Your task to perform on an android device: toggle show notifications on the lock screen Image 0: 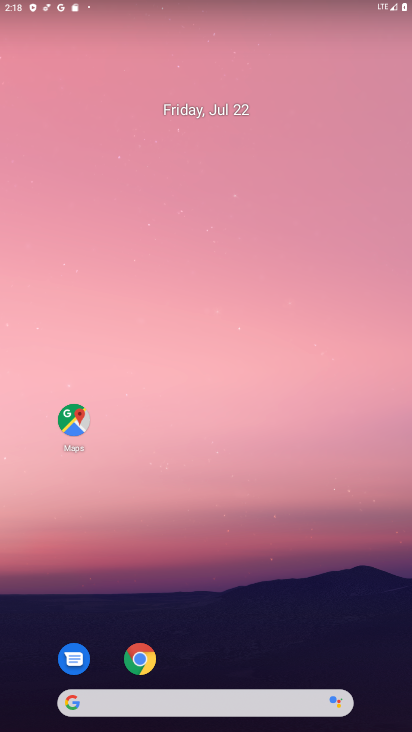
Step 0: click (65, 434)
Your task to perform on an android device: toggle show notifications on the lock screen Image 1: 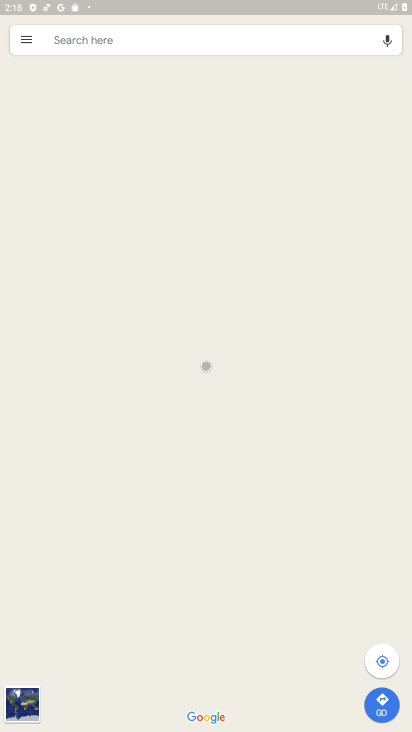
Step 1: click (97, 42)
Your task to perform on an android device: toggle show notifications on the lock screen Image 2: 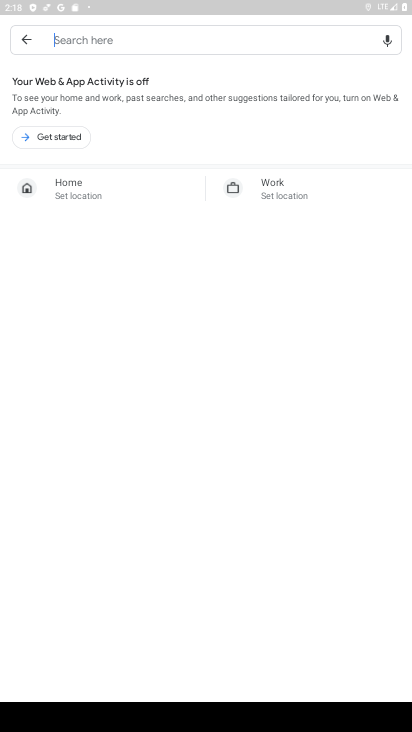
Step 2: type "sushi restaurants"
Your task to perform on an android device: toggle show notifications on the lock screen Image 3: 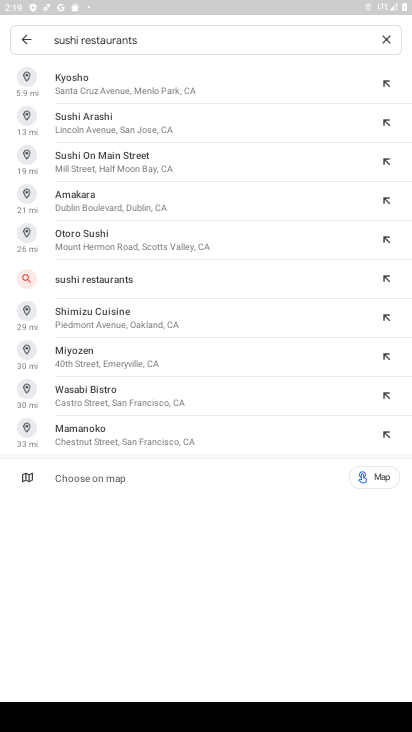
Step 3: click (133, 282)
Your task to perform on an android device: toggle show notifications on the lock screen Image 4: 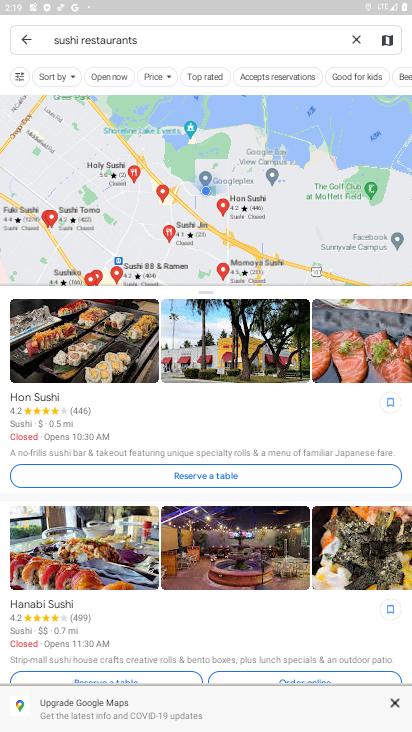
Step 4: press home button
Your task to perform on an android device: toggle show notifications on the lock screen Image 5: 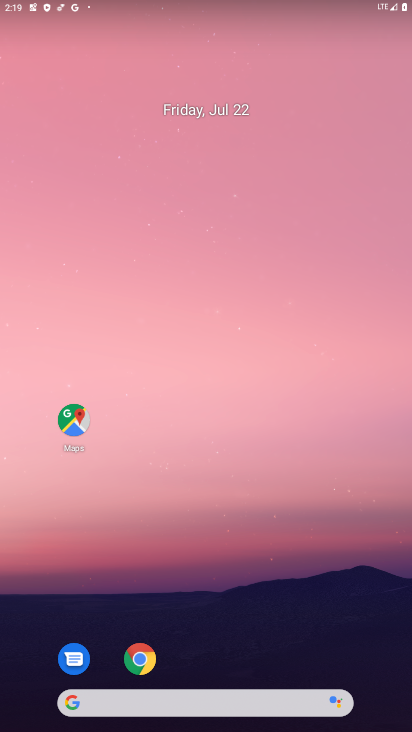
Step 5: drag from (194, 630) to (190, 153)
Your task to perform on an android device: toggle show notifications on the lock screen Image 6: 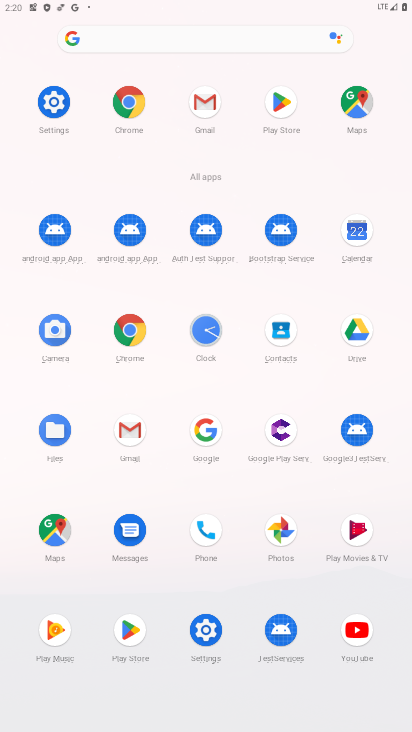
Step 6: click (50, 111)
Your task to perform on an android device: toggle show notifications on the lock screen Image 7: 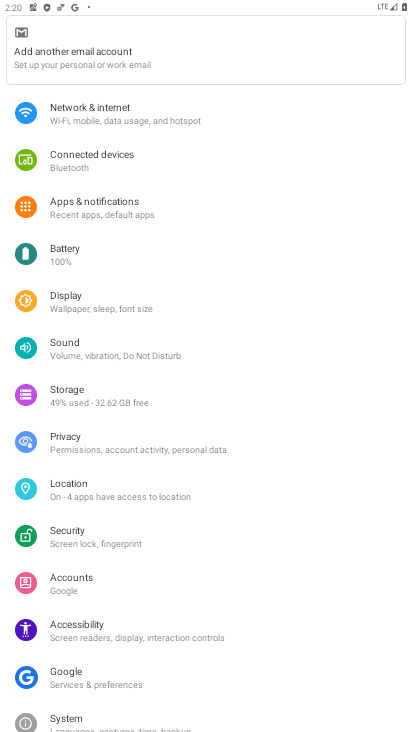
Step 7: click (101, 215)
Your task to perform on an android device: toggle show notifications on the lock screen Image 8: 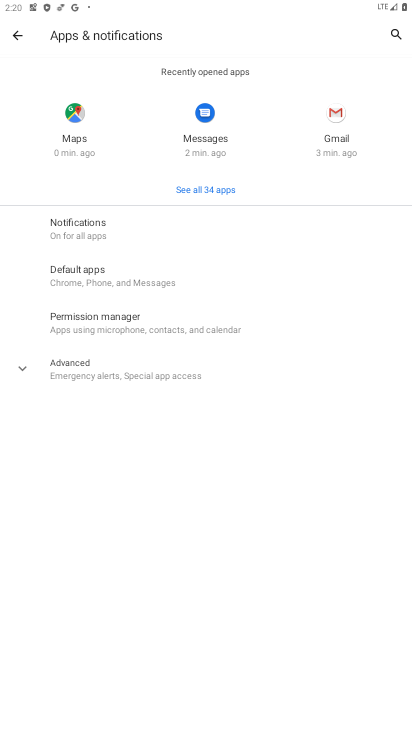
Step 8: click (70, 231)
Your task to perform on an android device: toggle show notifications on the lock screen Image 9: 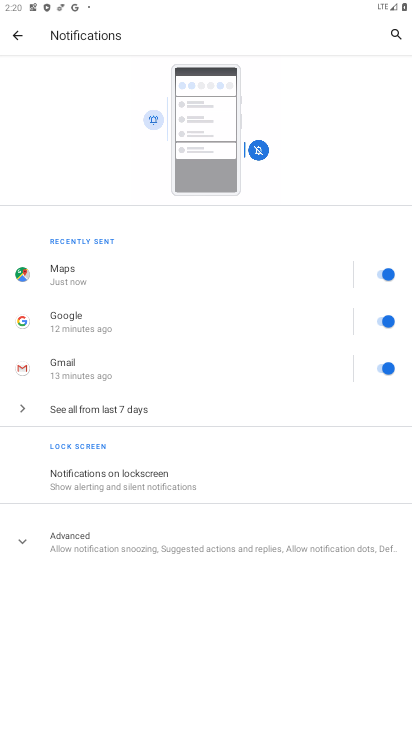
Step 9: click (75, 484)
Your task to perform on an android device: toggle show notifications on the lock screen Image 10: 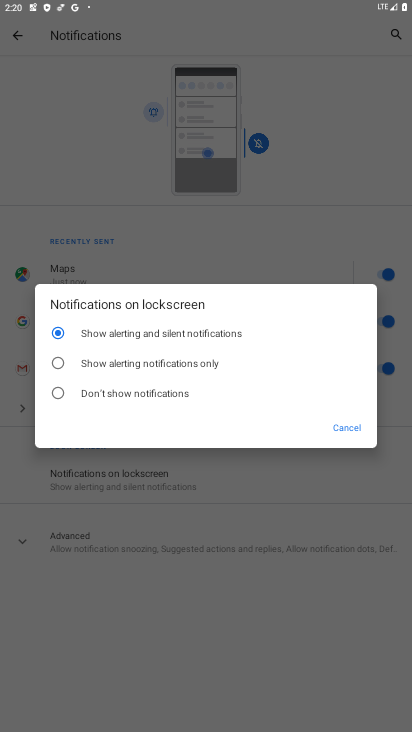
Step 10: click (55, 392)
Your task to perform on an android device: toggle show notifications on the lock screen Image 11: 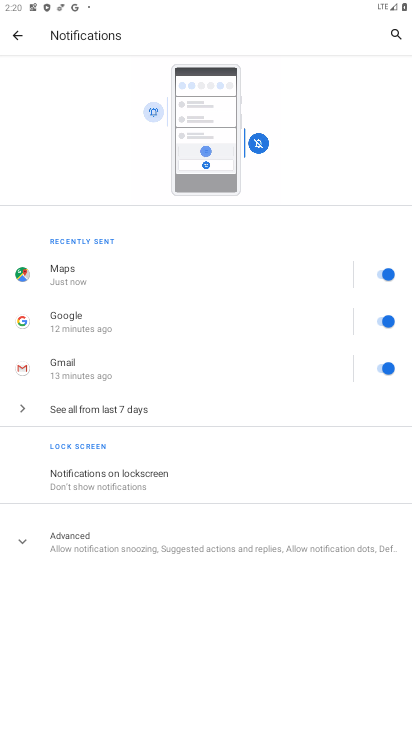
Step 11: task complete